Your task to perform on an android device: uninstall "Yahoo Mail" Image 0: 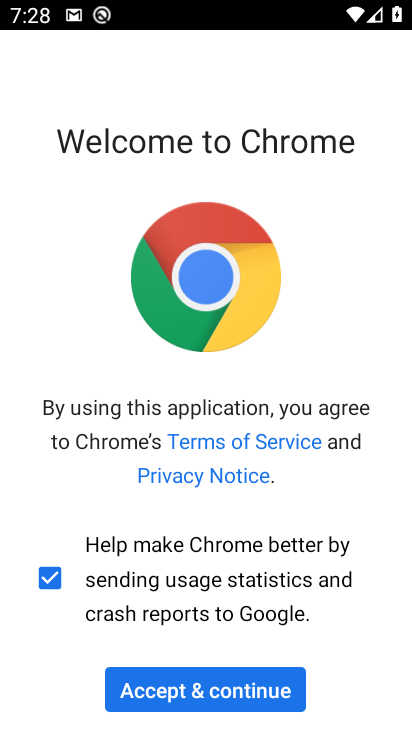
Step 0: press home button
Your task to perform on an android device: uninstall "Yahoo Mail" Image 1: 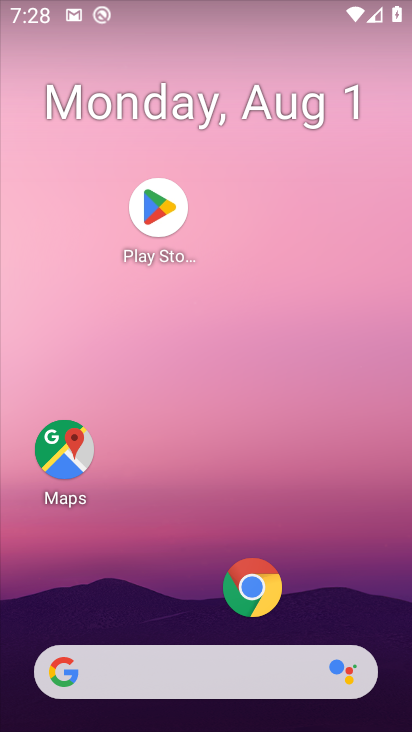
Step 1: click (154, 197)
Your task to perform on an android device: uninstall "Yahoo Mail" Image 2: 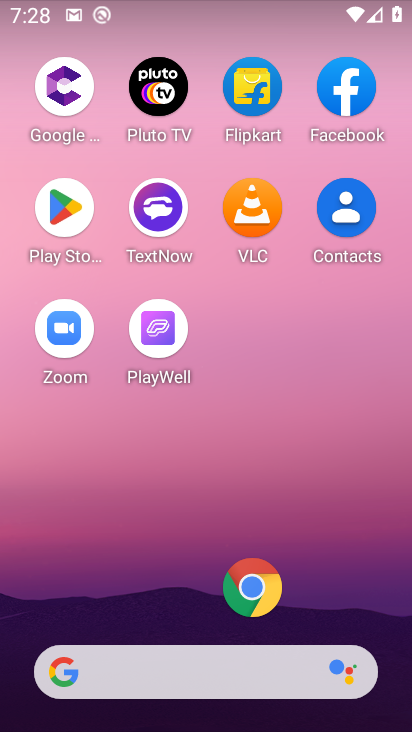
Step 2: click (67, 223)
Your task to perform on an android device: uninstall "Yahoo Mail" Image 3: 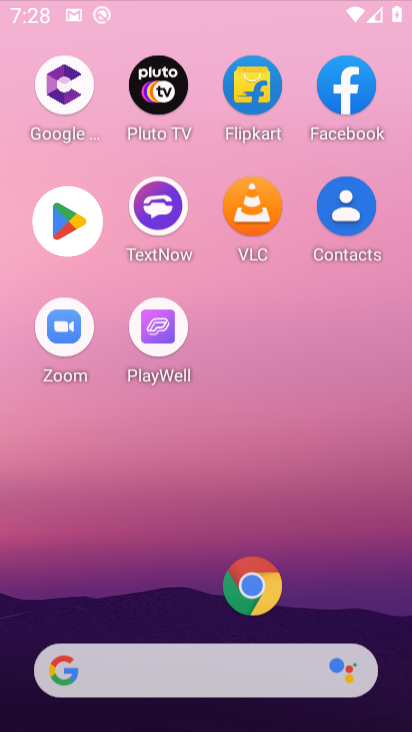
Step 3: click (67, 223)
Your task to perform on an android device: uninstall "Yahoo Mail" Image 4: 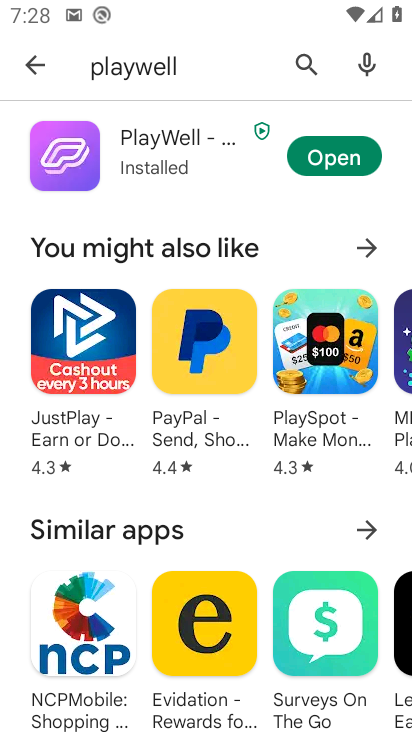
Step 4: click (297, 72)
Your task to perform on an android device: uninstall "Yahoo Mail" Image 5: 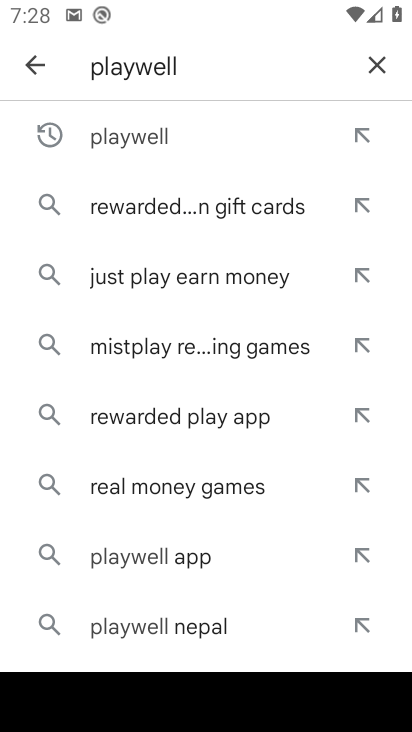
Step 5: click (375, 70)
Your task to perform on an android device: uninstall "Yahoo Mail" Image 6: 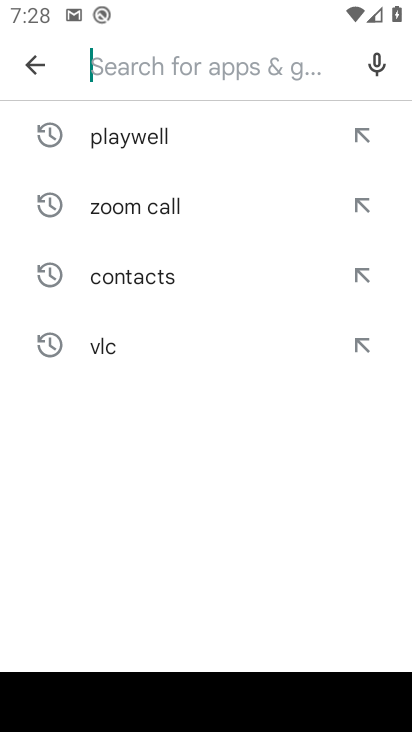
Step 6: type "yahoomail"
Your task to perform on an android device: uninstall "Yahoo Mail" Image 7: 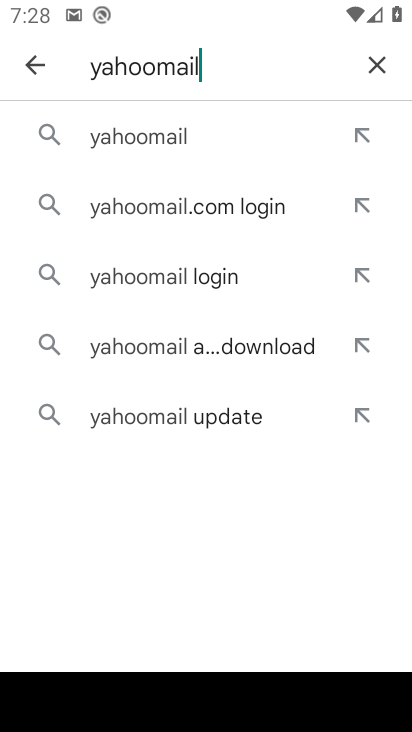
Step 7: click (359, 143)
Your task to perform on an android device: uninstall "Yahoo Mail" Image 8: 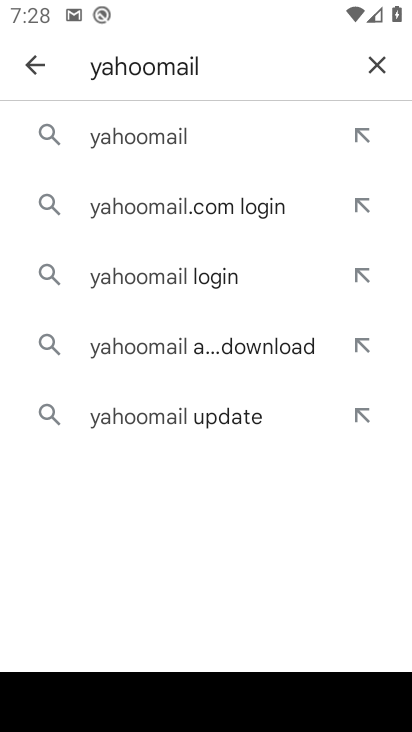
Step 8: click (317, 143)
Your task to perform on an android device: uninstall "Yahoo Mail" Image 9: 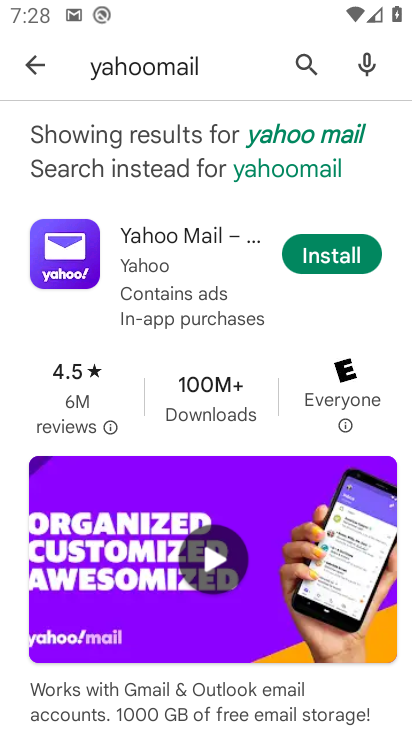
Step 9: click (343, 236)
Your task to perform on an android device: uninstall "Yahoo Mail" Image 10: 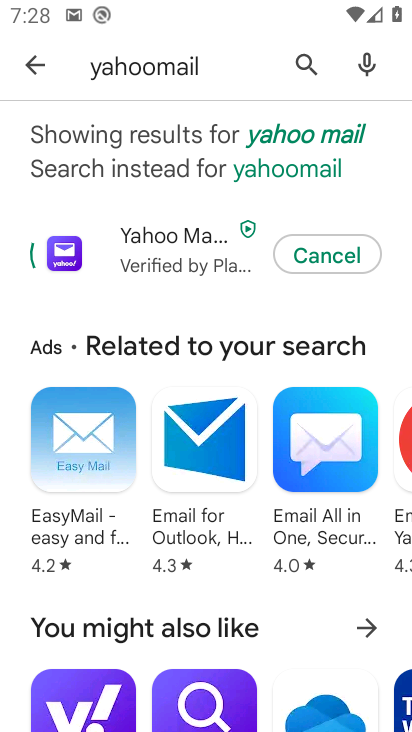
Step 10: task complete